Your task to perform on an android device: make emails show in primary in the gmail app Image 0: 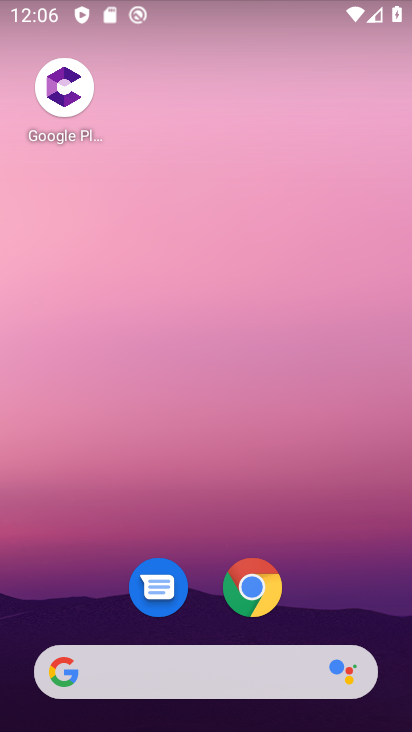
Step 0: drag from (357, 397) to (305, 126)
Your task to perform on an android device: make emails show in primary in the gmail app Image 1: 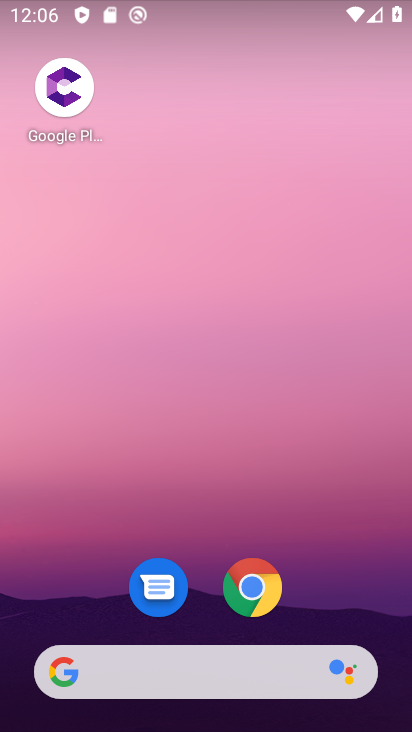
Step 1: drag from (376, 642) to (260, 200)
Your task to perform on an android device: make emails show in primary in the gmail app Image 2: 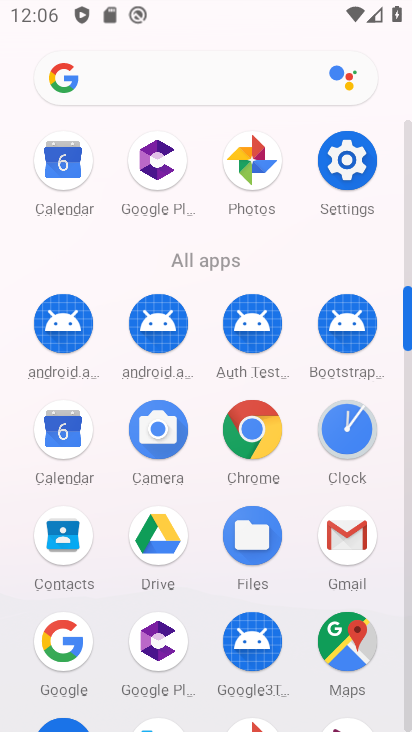
Step 2: click (355, 550)
Your task to perform on an android device: make emails show in primary in the gmail app Image 3: 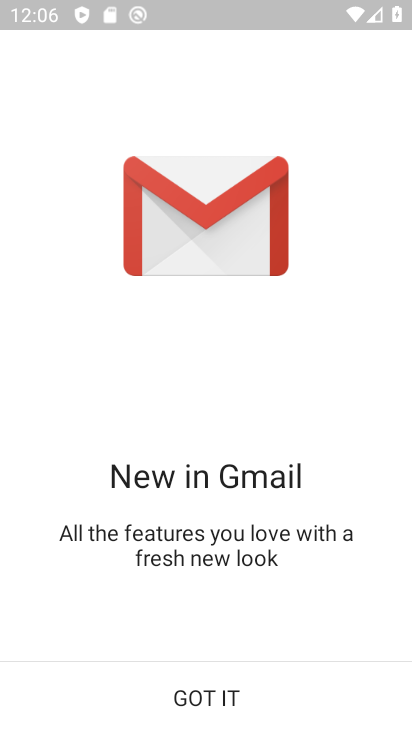
Step 3: click (212, 691)
Your task to perform on an android device: make emails show in primary in the gmail app Image 4: 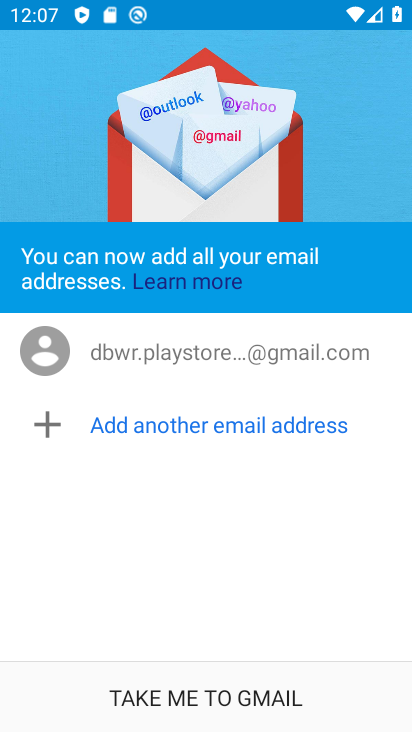
Step 4: click (232, 691)
Your task to perform on an android device: make emails show in primary in the gmail app Image 5: 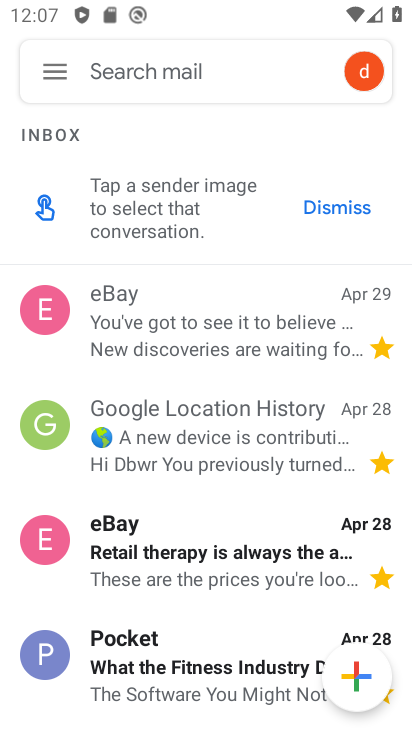
Step 5: click (59, 69)
Your task to perform on an android device: make emails show in primary in the gmail app Image 6: 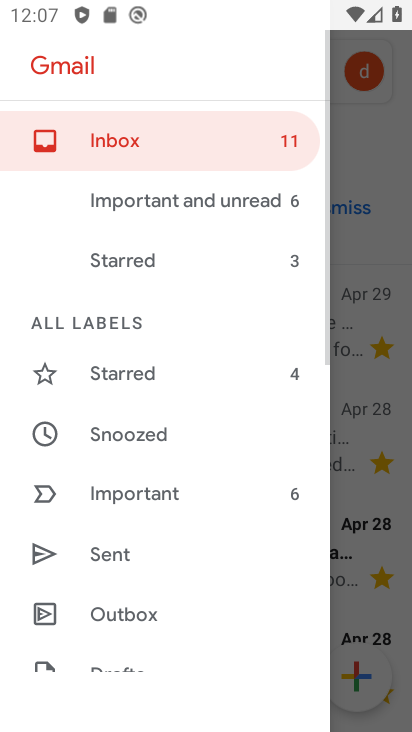
Step 6: drag from (236, 648) to (193, 295)
Your task to perform on an android device: make emails show in primary in the gmail app Image 7: 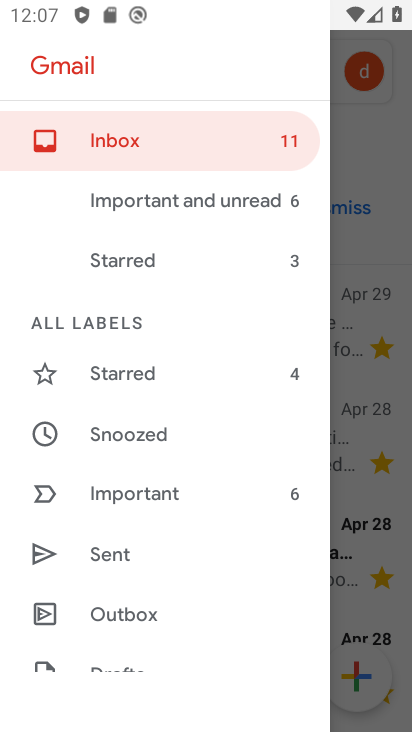
Step 7: drag from (252, 659) to (208, 317)
Your task to perform on an android device: make emails show in primary in the gmail app Image 8: 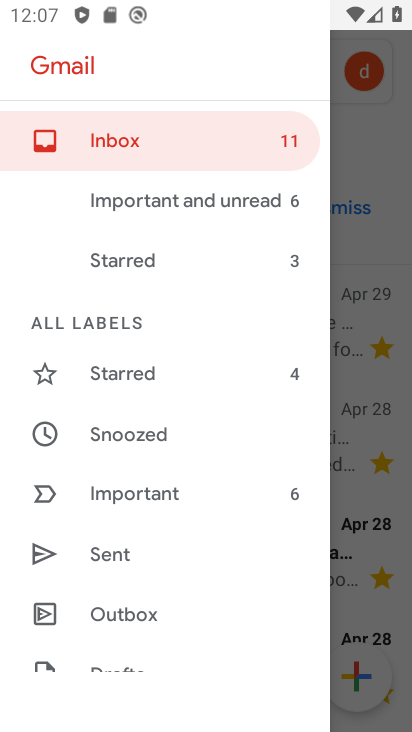
Step 8: drag from (214, 584) to (216, 283)
Your task to perform on an android device: make emails show in primary in the gmail app Image 9: 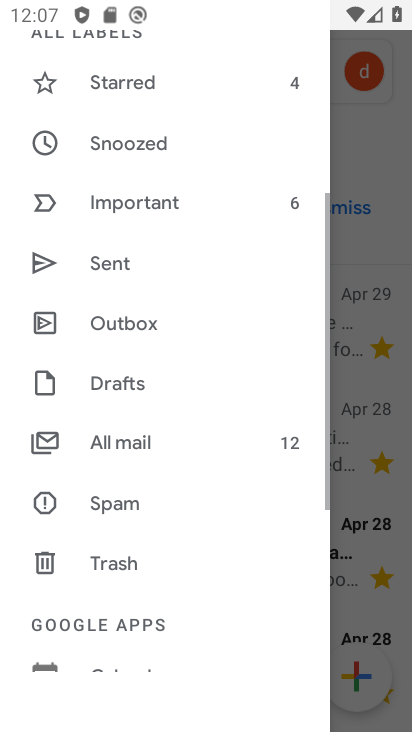
Step 9: drag from (215, 499) to (212, 293)
Your task to perform on an android device: make emails show in primary in the gmail app Image 10: 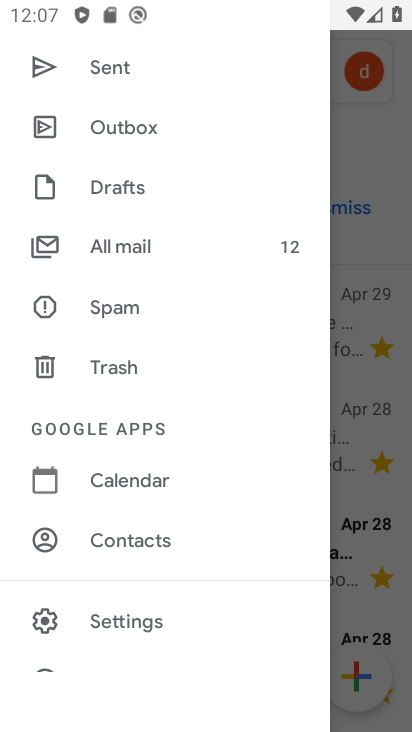
Step 10: click (130, 616)
Your task to perform on an android device: make emails show in primary in the gmail app Image 11: 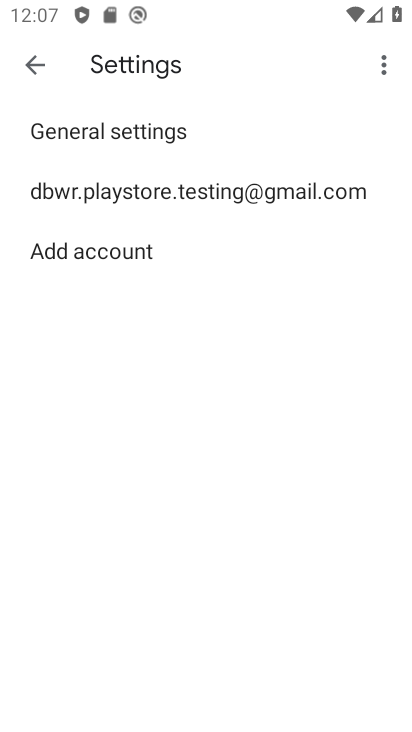
Step 11: click (93, 186)
Your task to perform on an android device: make emails show in primary in the gmail app Image 12: 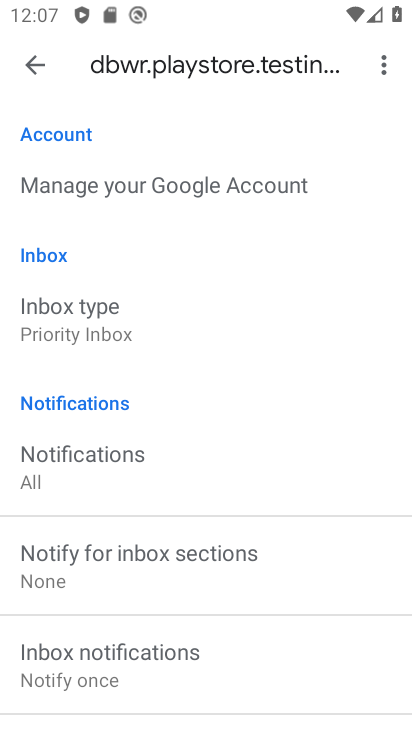
Step 12: drag from (336, 622) to (298, 251)
Your task to perform on an android device: make emails show in primary in the gmail app Image 13: 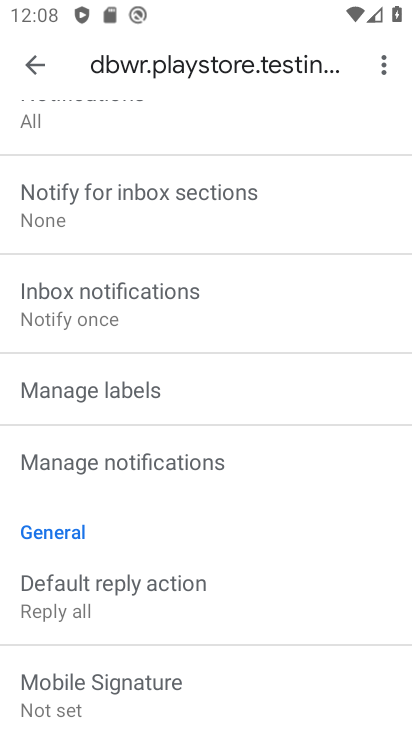
Step 13: drag from (263, 270) to (238, 643)
Your task to perform on an android device: make emails show in primary in the gmail app Image 14: 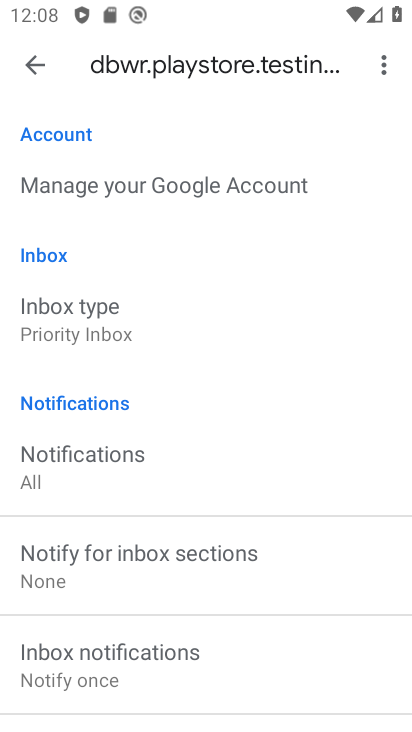
Step 14: click (46, 305)
Your task to perform on an android device: make emails show in primary in the gmail app Image 15: 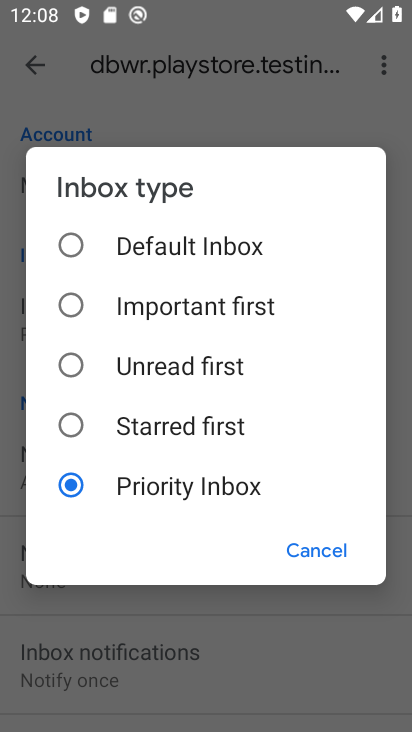
Step 15: click (64, 239)
Your task to perform on an android device: make emails show in primary in the gmail app Image 16: 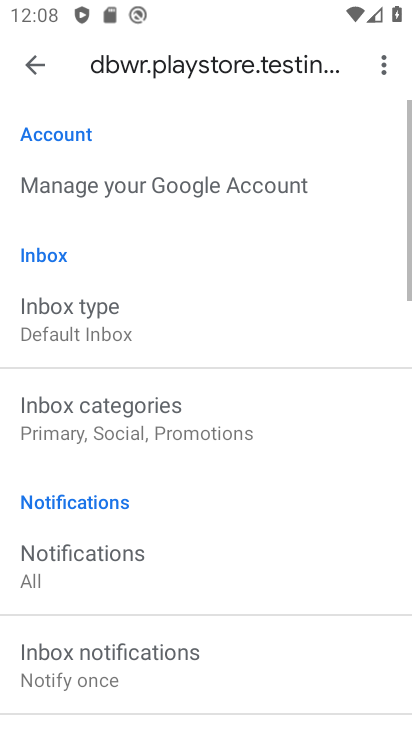
Step 16: click (91, 409)
Your task to perform on an android device: make emails show in primary in the gmail app Image 17: 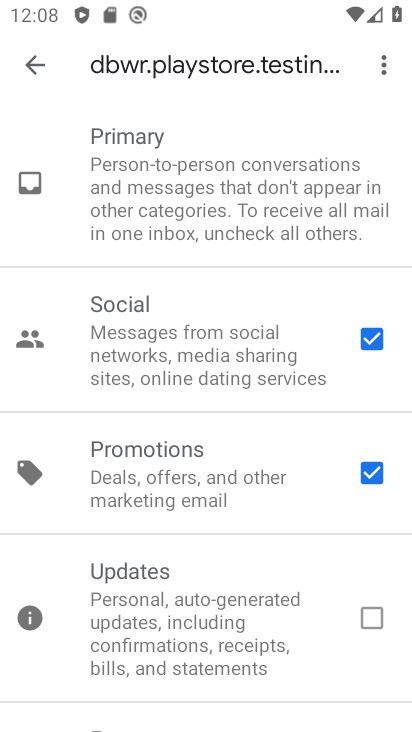
Step 17: click (363, 334)
Your task to perform on an android device: make emails show in primary in the gmail app Image 18: 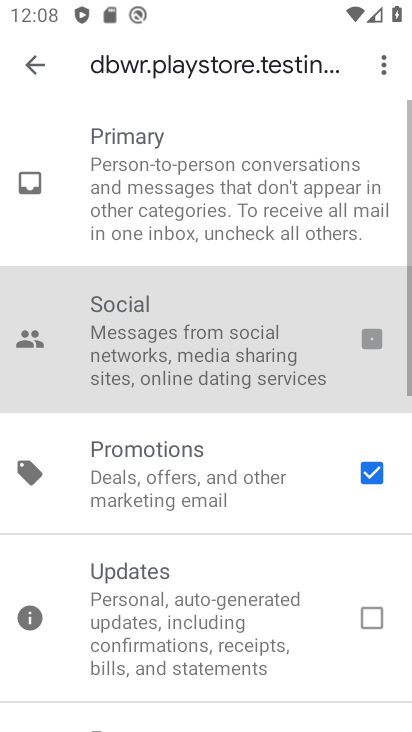
Step 18: click (366, 475)
Your task to perform on an android device: make emails show in primary in the gmail app Image 19: 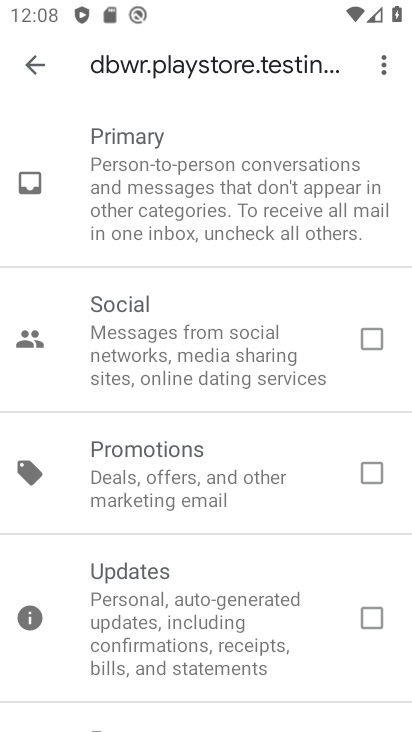
Step 19: click (41, 59)
Your task to perform on an android device: make emails show in primary in the gmail app Image 20: 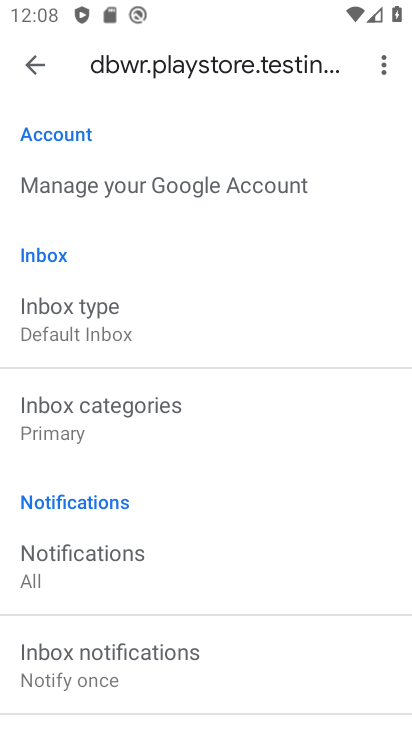
Step 20: task complete